Your task to perform on an android device: turn on sleep mode Image 0: 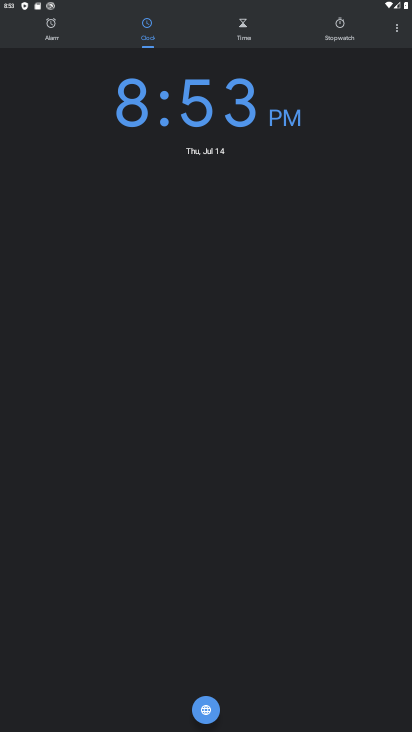
Step 0: press home button
Your task to perform on an android device: turn on sleep mode Image 1: 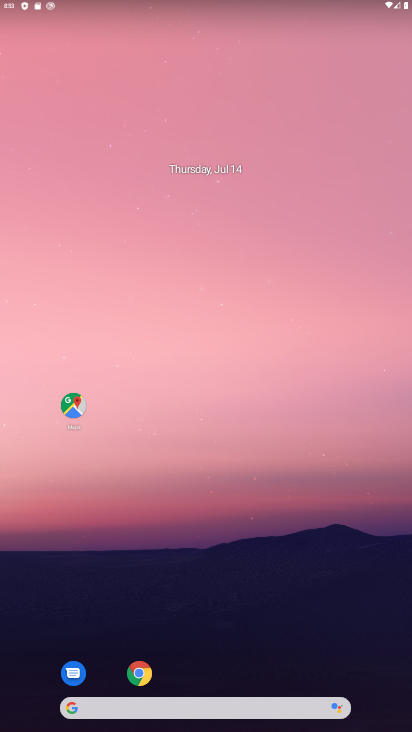
Step 1: drag from (266, 613) to (241, 60)
Your task to perform on an android device: turn on sleep mode Image 2: 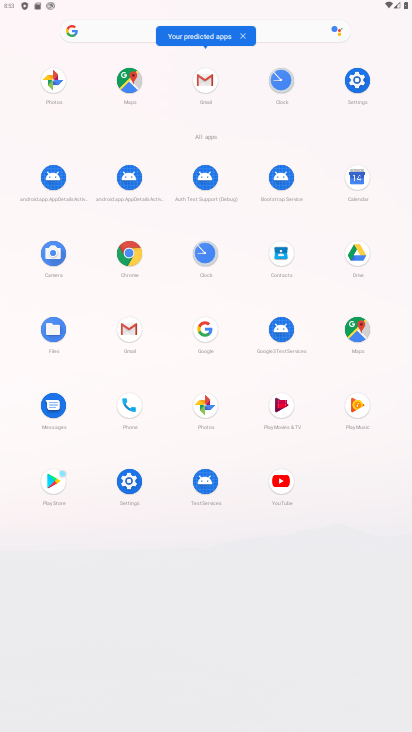
Step 2: click (362, 90)
Your task to perform on an android device: turn on sleep mode Image 3: 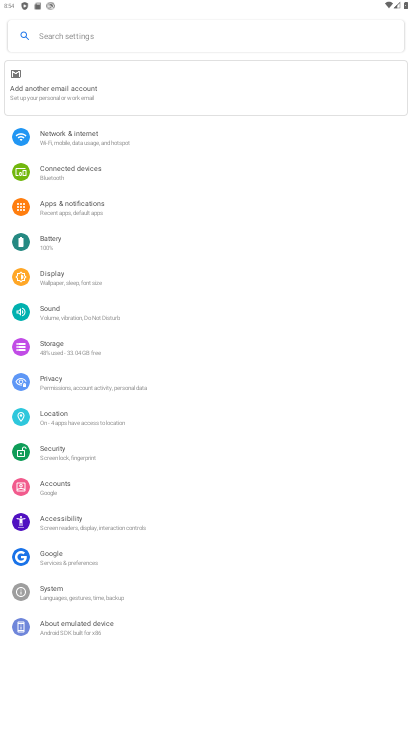
Step 3: click (45, 274)
Your task to perform on an android device: turn on sleep mode Image 4: 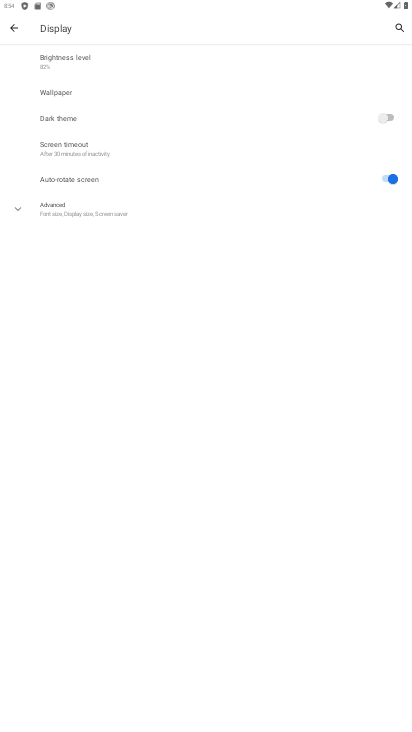
Step 4: task complete